Your task to perform on an android device: Open Youtube and go to the subscriptions tab Image 0: 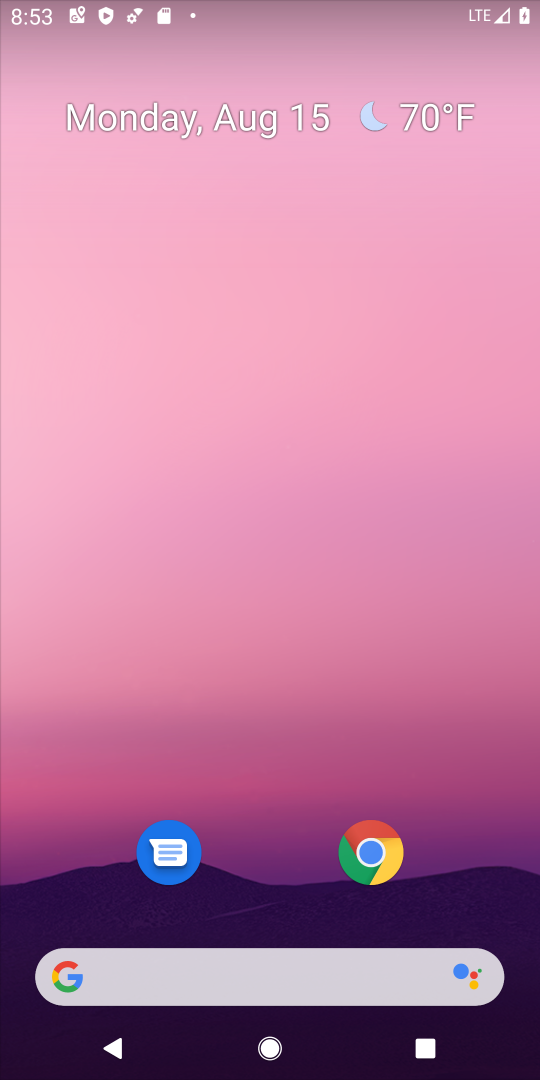
Step 0: drag from (230, 975) to (342, 66)
Your task to perform on an android device: Open Youtube and go to the subscriptions tab Image 1: 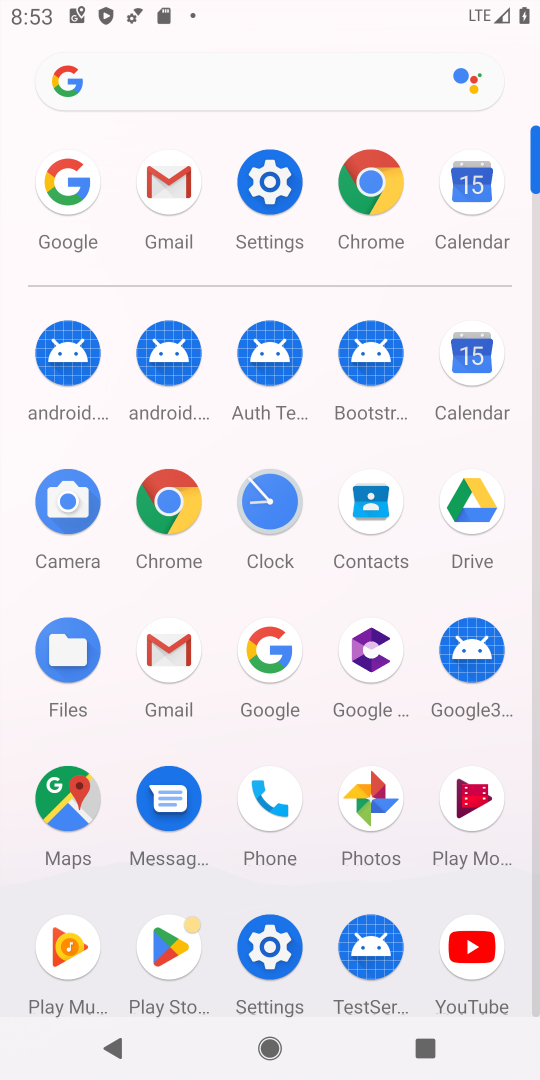
Step 1: click (467, 952)
Your task to perform on an android device: Open Youtube and go to the subscriptions tab Image 2: 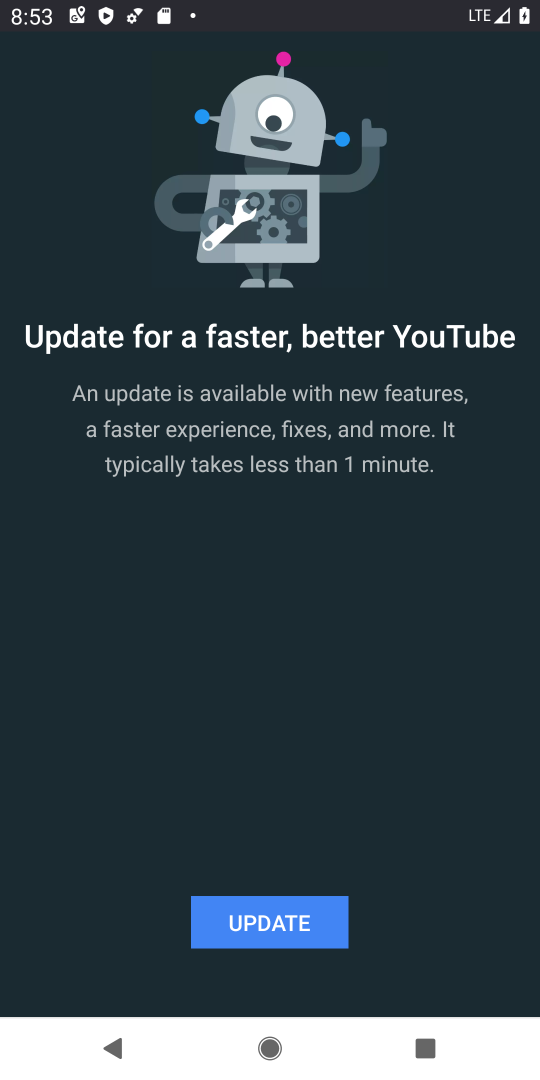
Step 2: click (277, 923)
Your task to perform on an android device: Open Youtube and go to the subscriptions tab Image 3: 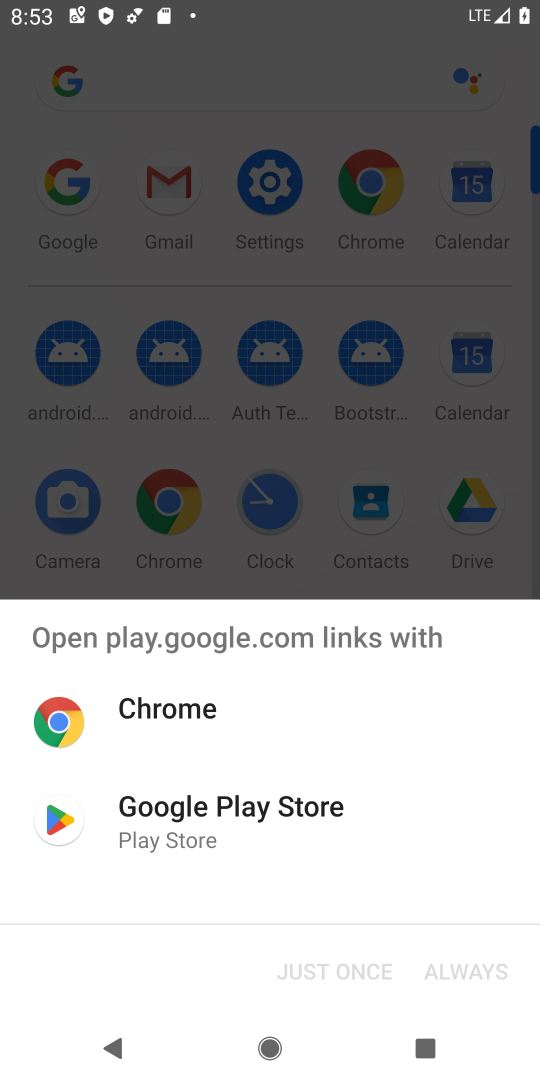
Step 3: click (201, 799)
Your task to perform on an android device: Open Youtube and go to the subscriptions tab Image 4: 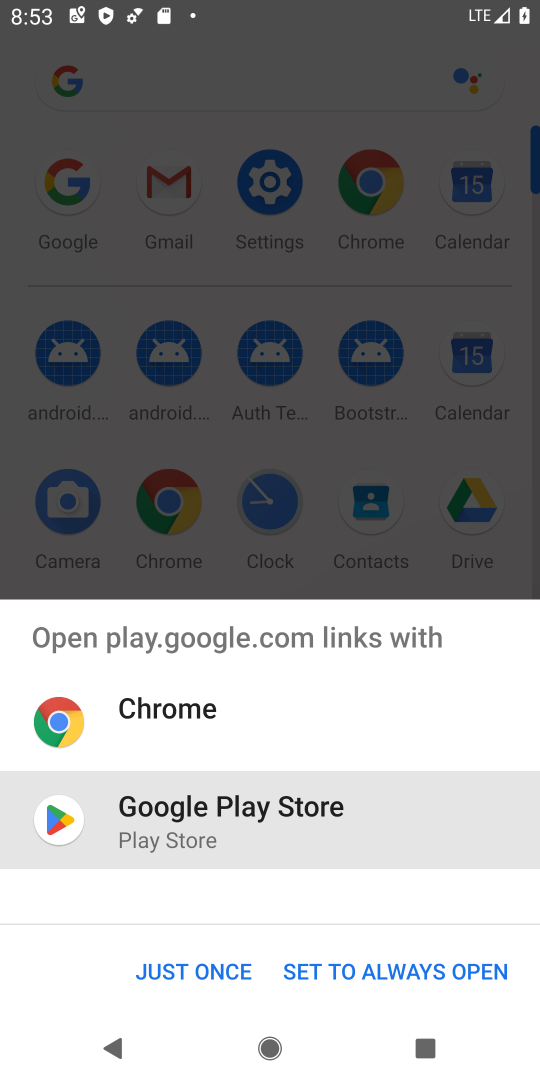
Step 4: click (179, 975)
Your task to perform on an android device: Open Youtube and go to the subscriptions tab Image 5: 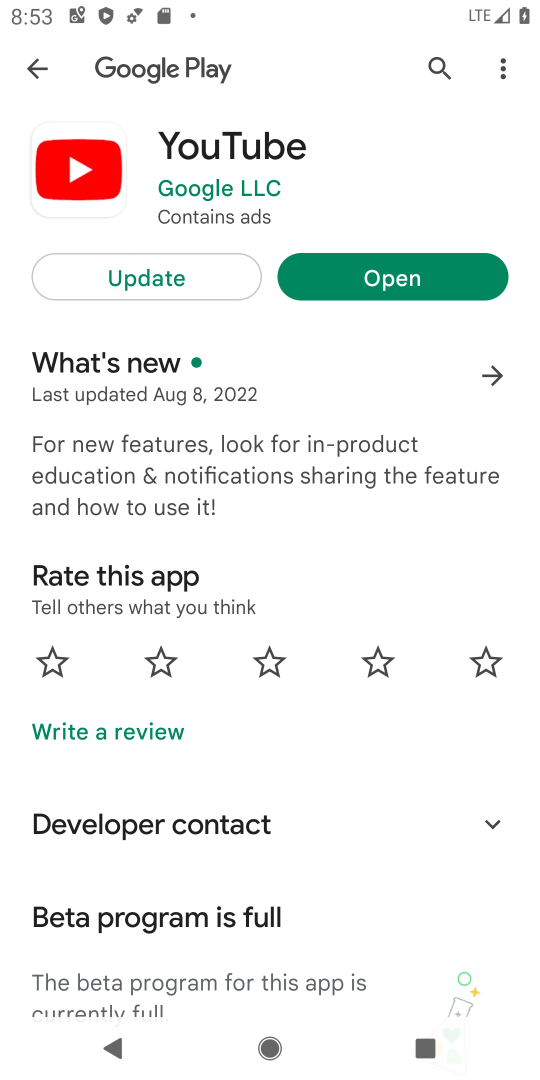
Step 5: click (173, 259)
Your task to perform on an android device: Open Youtube and go to the subscriptions tab Image 6: 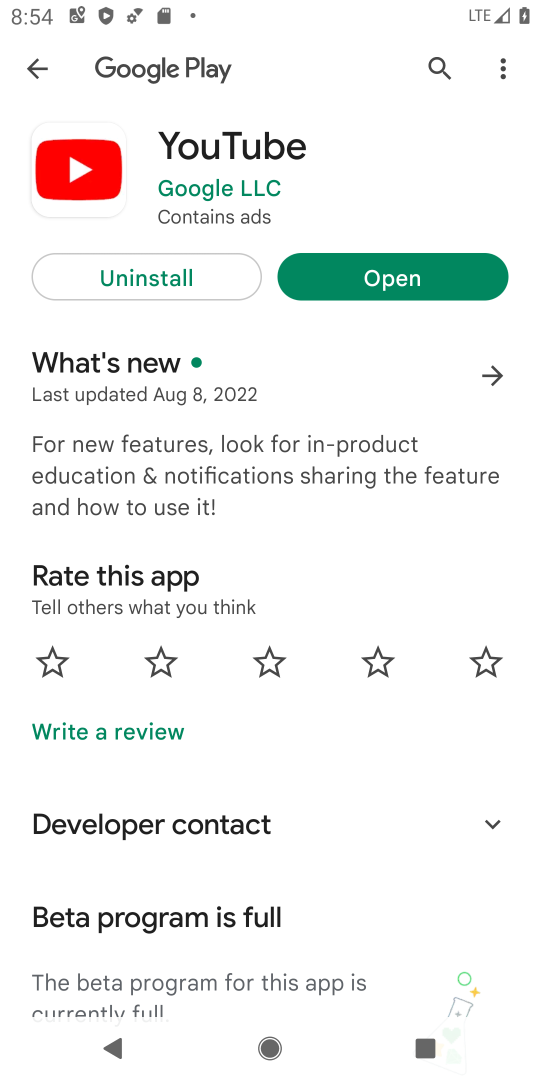
Step 6: click (374, 282)
Your task to perform on an android device: Open Youtube and go to the subscriptions tab Image 7: 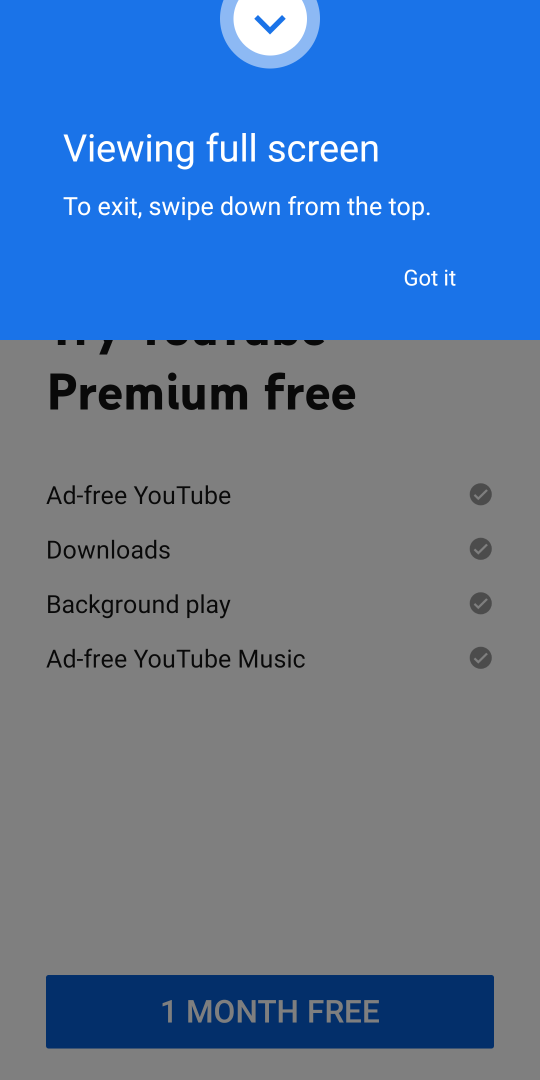
Step 7: click (430, 273)
Your task to perform on an android device: Open Youtube and go to the subscriptions tab Image 8: 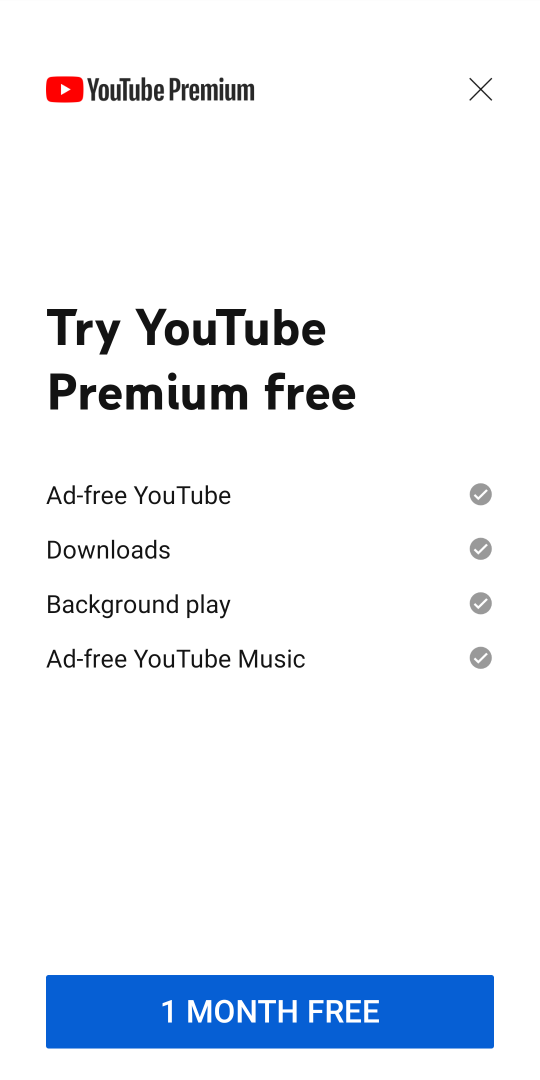
Step 8: click (470, 88)
Your task to perform on an android device: Open Youtube and go to the subscriptions tab Image 9: 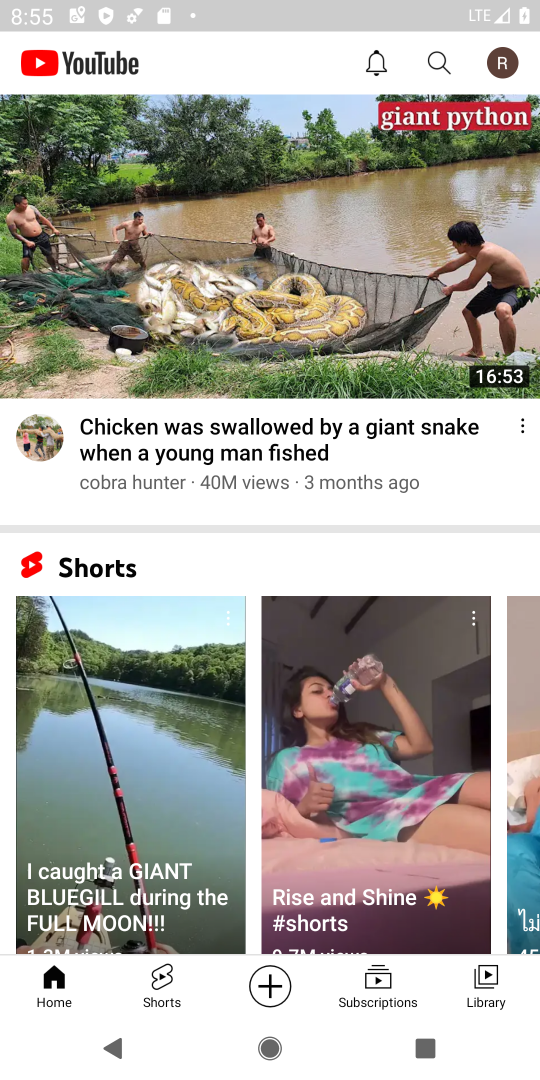
Step 9: click (380, 985)
Your task to perform on an android device: Open Youtube and go to the subscriptions tab Image 10: 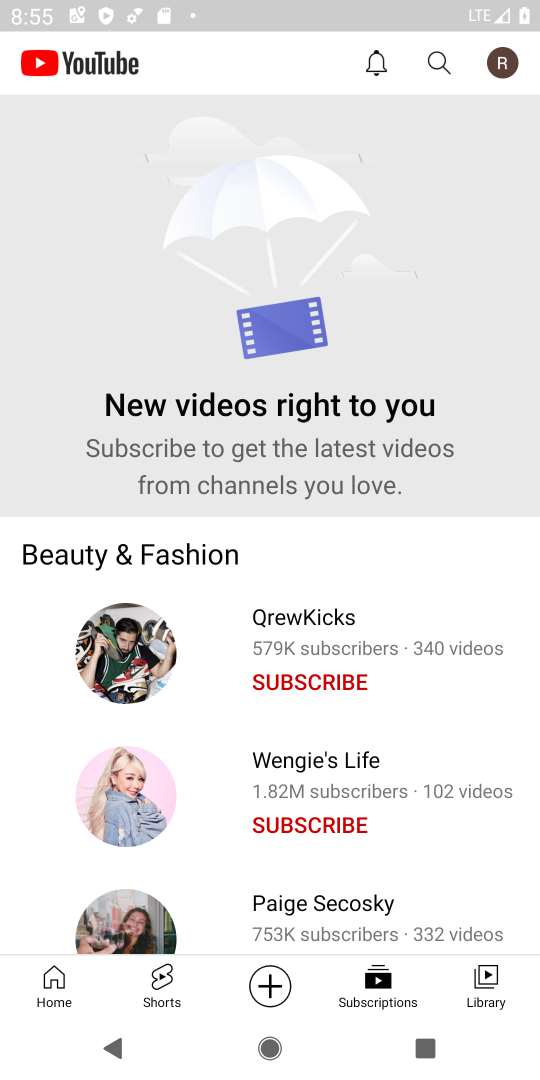
Step 10: task complete